Your task to perform on an android device: Open Wikipedia Image 0: 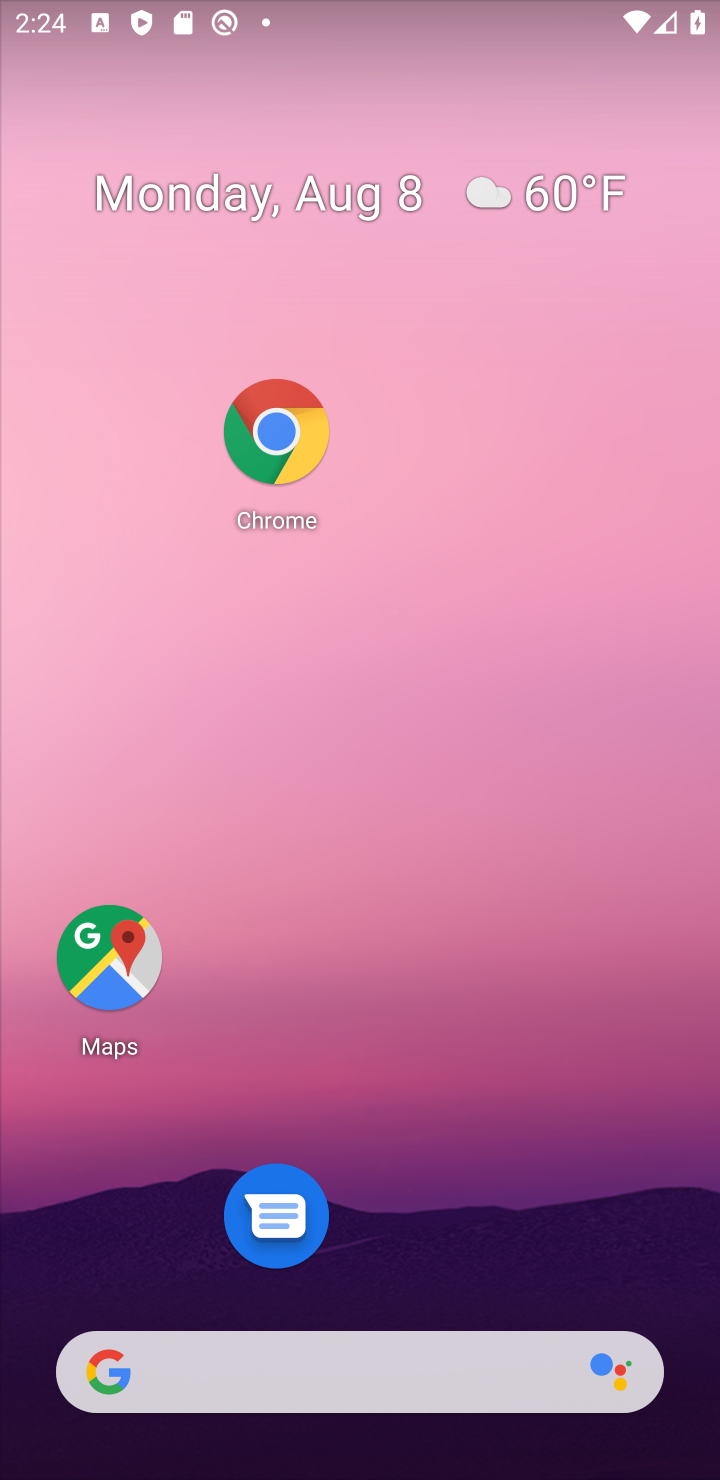
Step 0: drag from (379, 1388) to (425, 182)
Your task to perform on an android device: Open Wikipedia Image 1: 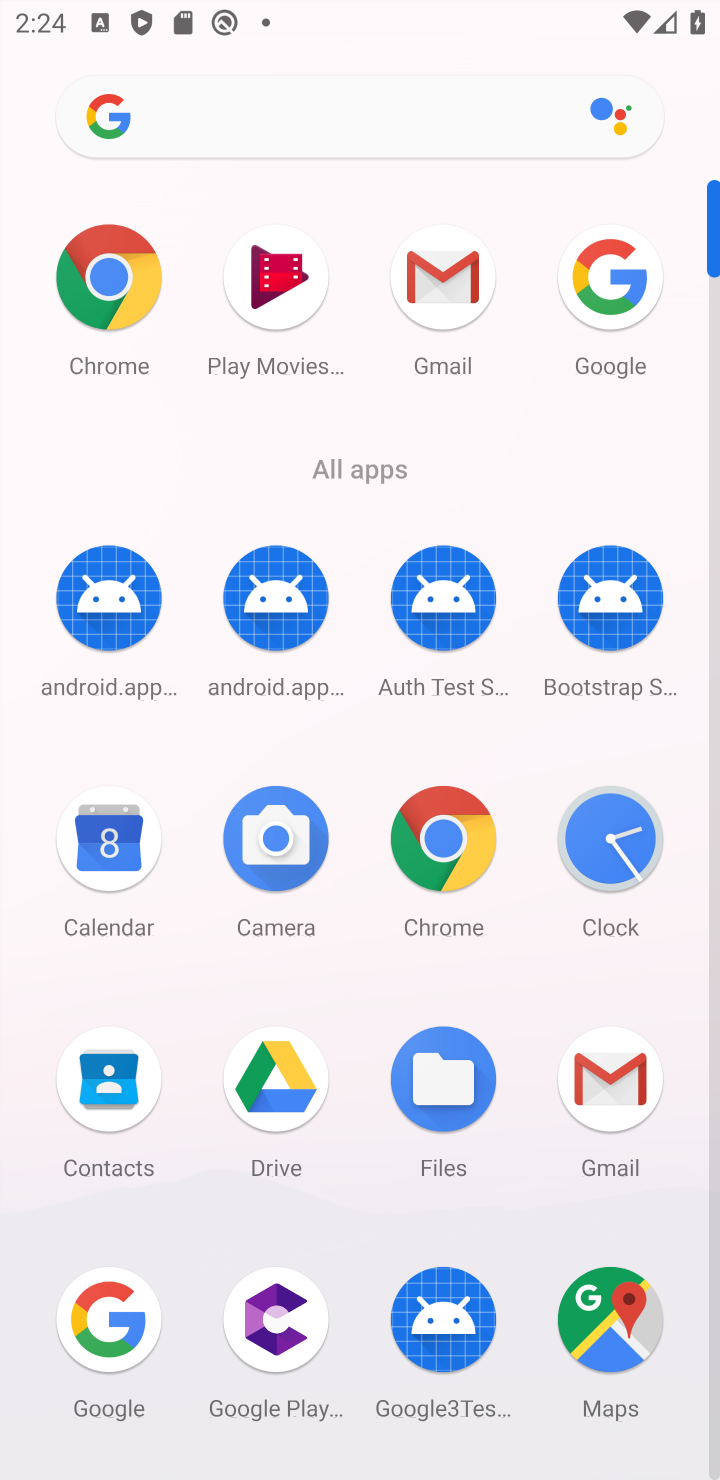
Step 1: drag from (387, 737) to (456, 0)
Your task to perform on an android device: Open Wikipedia Image 2: 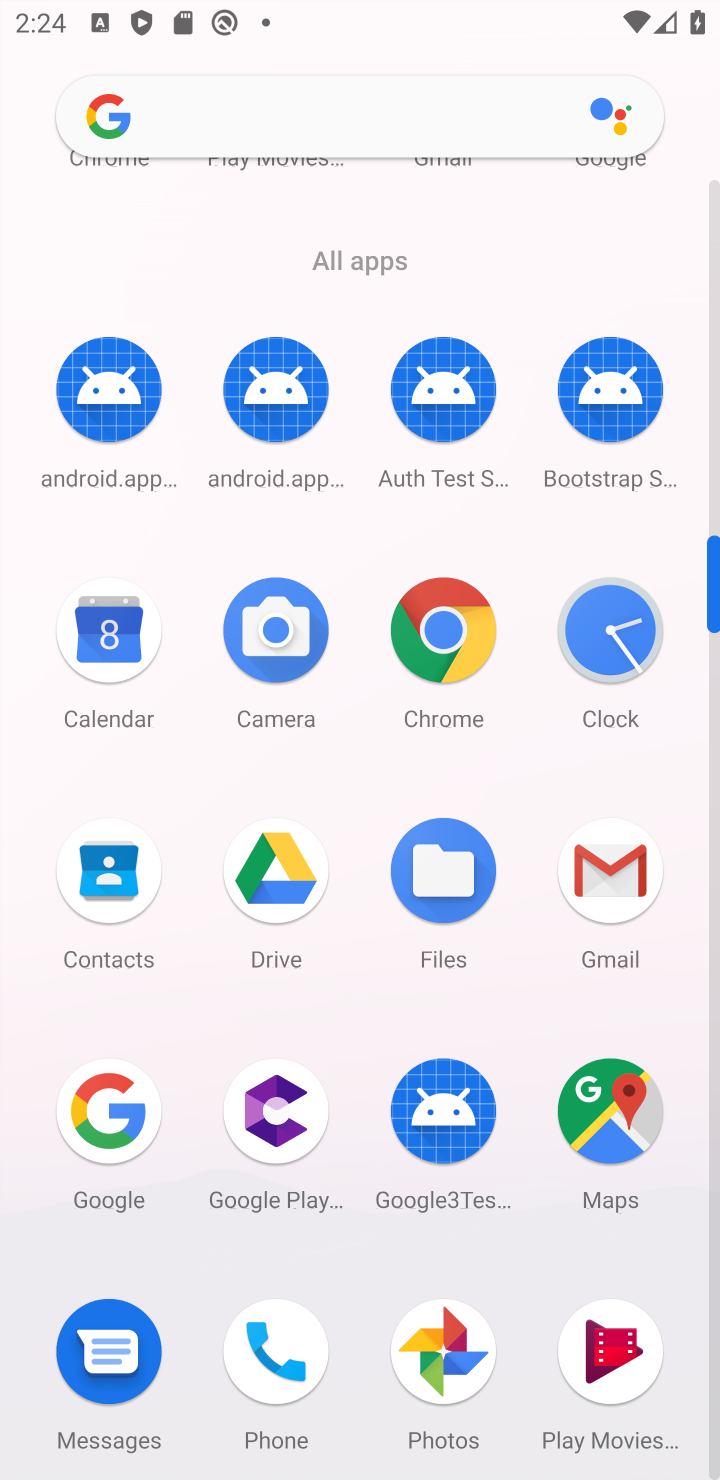
Step 2: click (467, 594)
Your task to perform on an android device: Open Wikipedia Image 3: 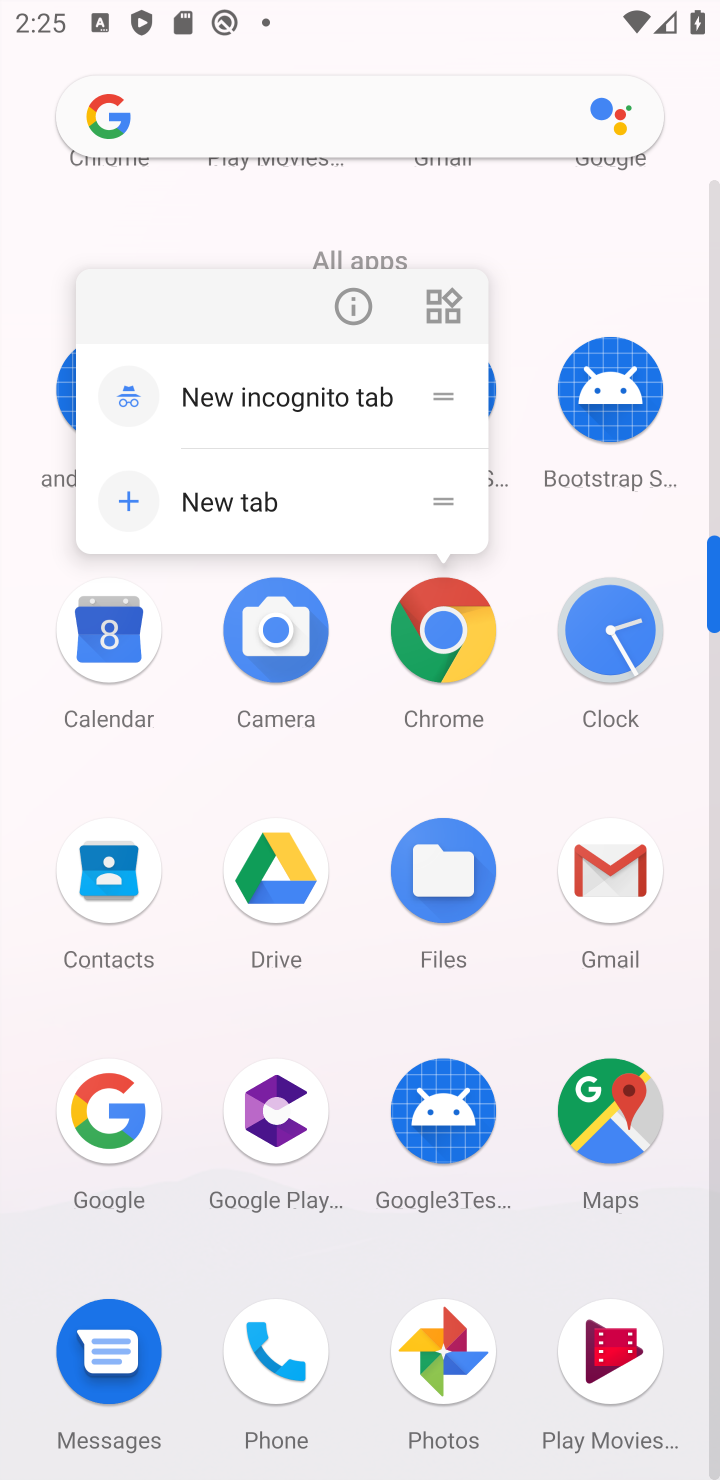
Step 3: click (462, 659)
Your task to perform on an android device: Open Wikipedia Image 4: 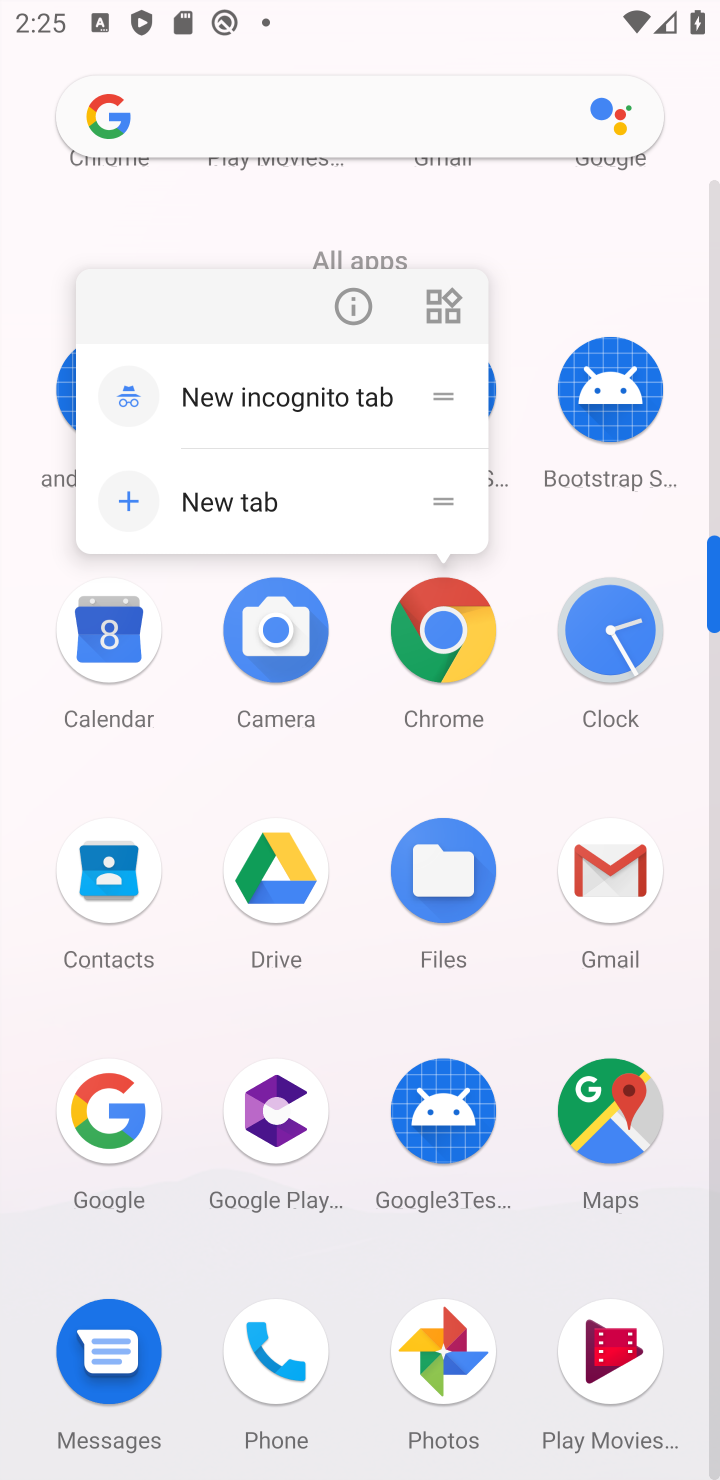
Step 4: click (472, 724)
Your task to perform on an android device: Open Wikipedia Image 5: 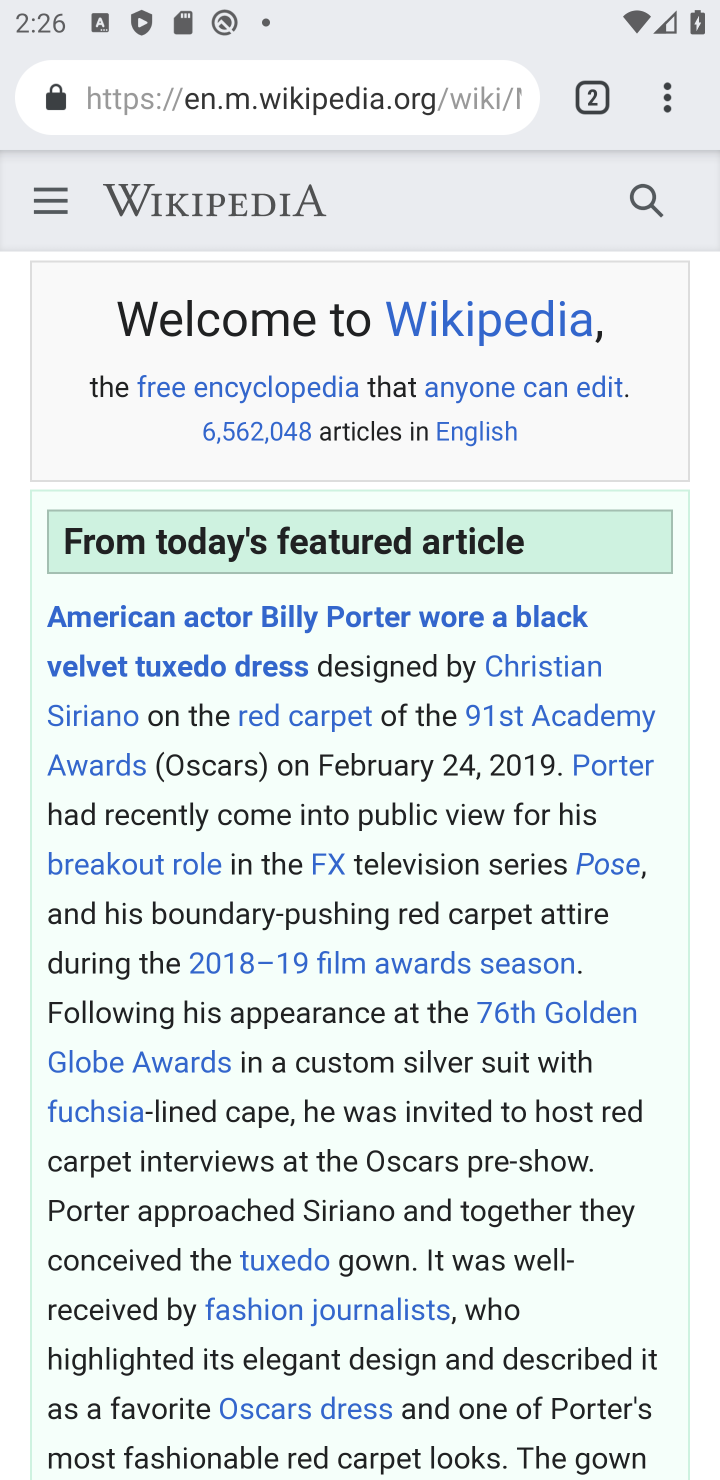
Step 5: task complete